Your task to perform on an android device: Go to Yahoo.com Image 0: 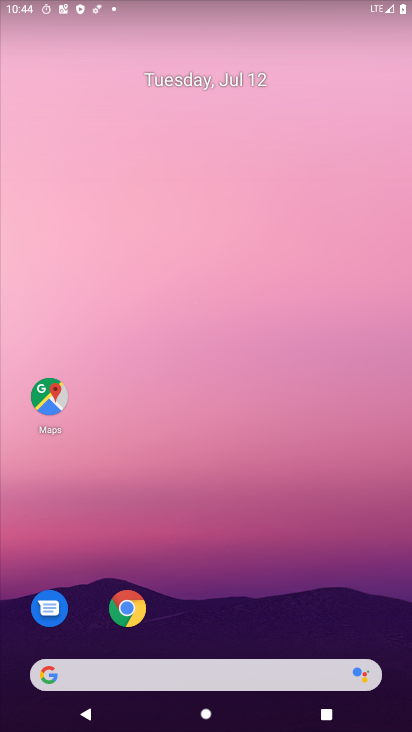
Step 0: click (121, 605)
Your task to perform on an android device: Go to Yahoo.com Image 1: 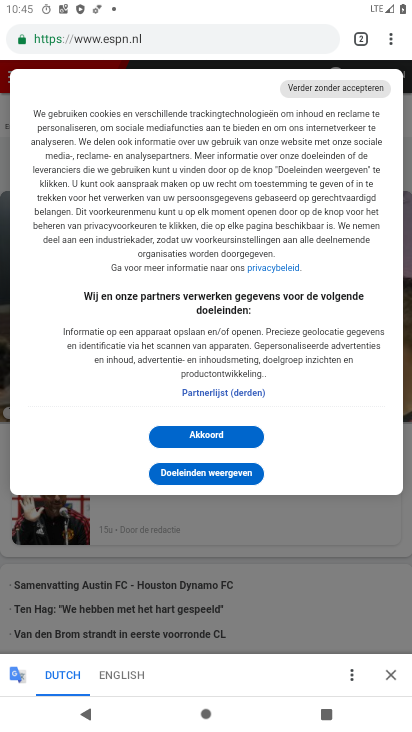
Step 1: click (200, 35)
Your task to perform on an android device: Go to Yahoo.com Image 2: 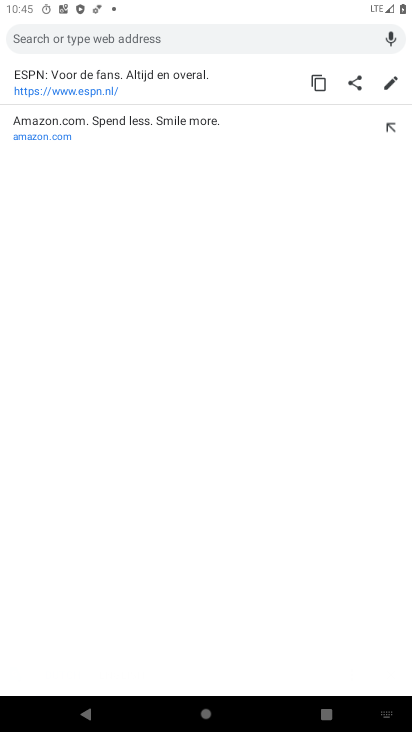
Step 2: type "yahoo.com"
Your task to perform on an android device: Go to Yahoo.com Image 3: 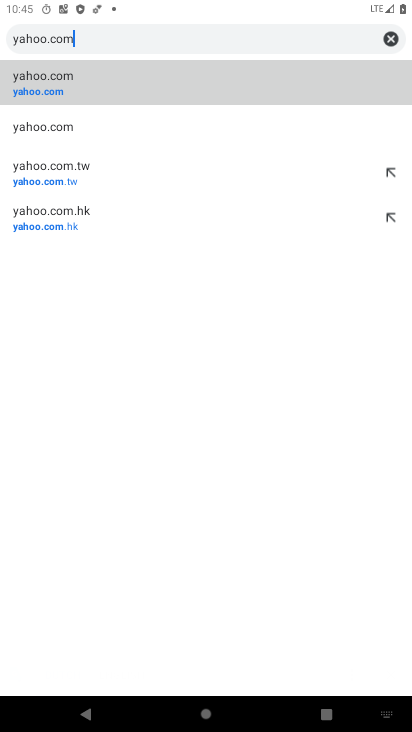
Step 3: click (107, 80)
Your task to perform on an android device: Go to Yahoo.com Image 4: 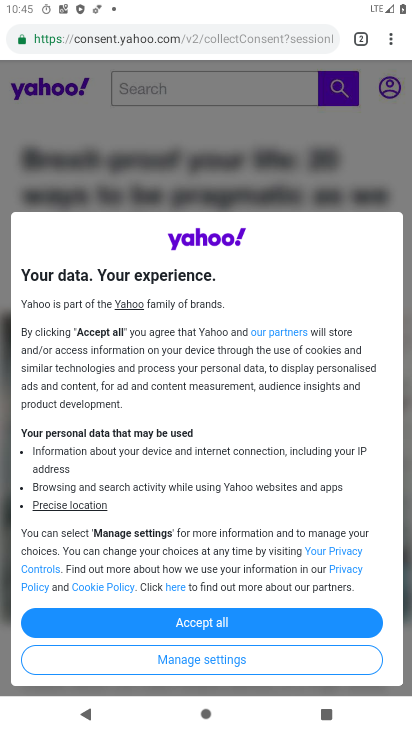
Step 4: task complete